Your task to perform on an android device: find photos in the google photos app Image 0: 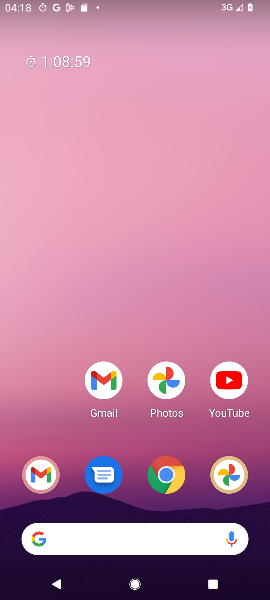
Step 0: press home button
Your task to perform on an android device: find photos in the google photos app Image 1: 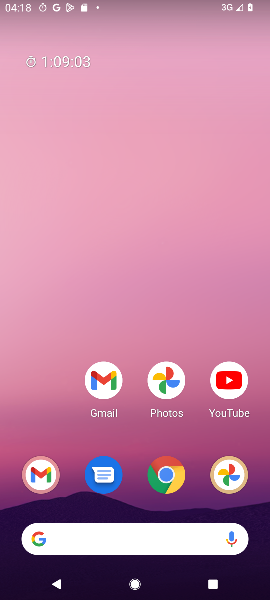
Step 1: drag from (50, 421) to (42, 199)
Your task to perform on an android device: find photos in the google photos app Image 2: 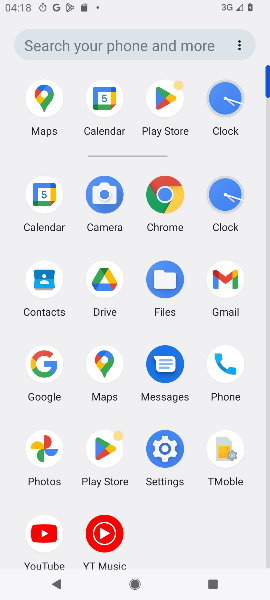
Step 2: click (42, 453)
Your task to perform on an android device: find photos in the google photos app Image 3: 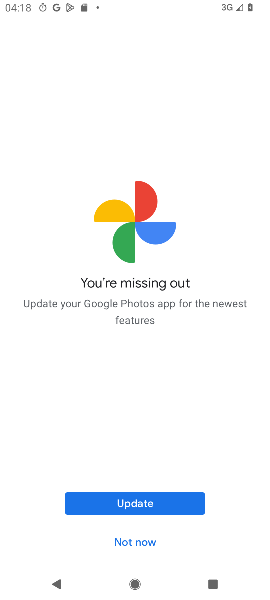
Step 3: click (129, 541)
Your task to perform on an android device: find photos in the google photos app Image 4: 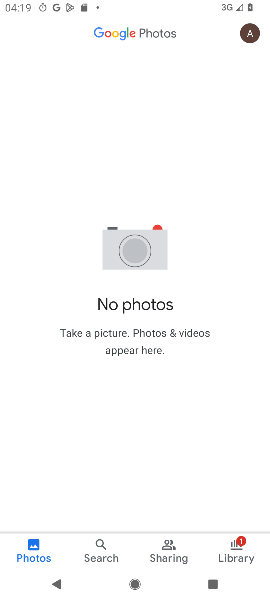
Step 4: task complete